Your task to perform on an android device: install app "Truecaller" Image 0: 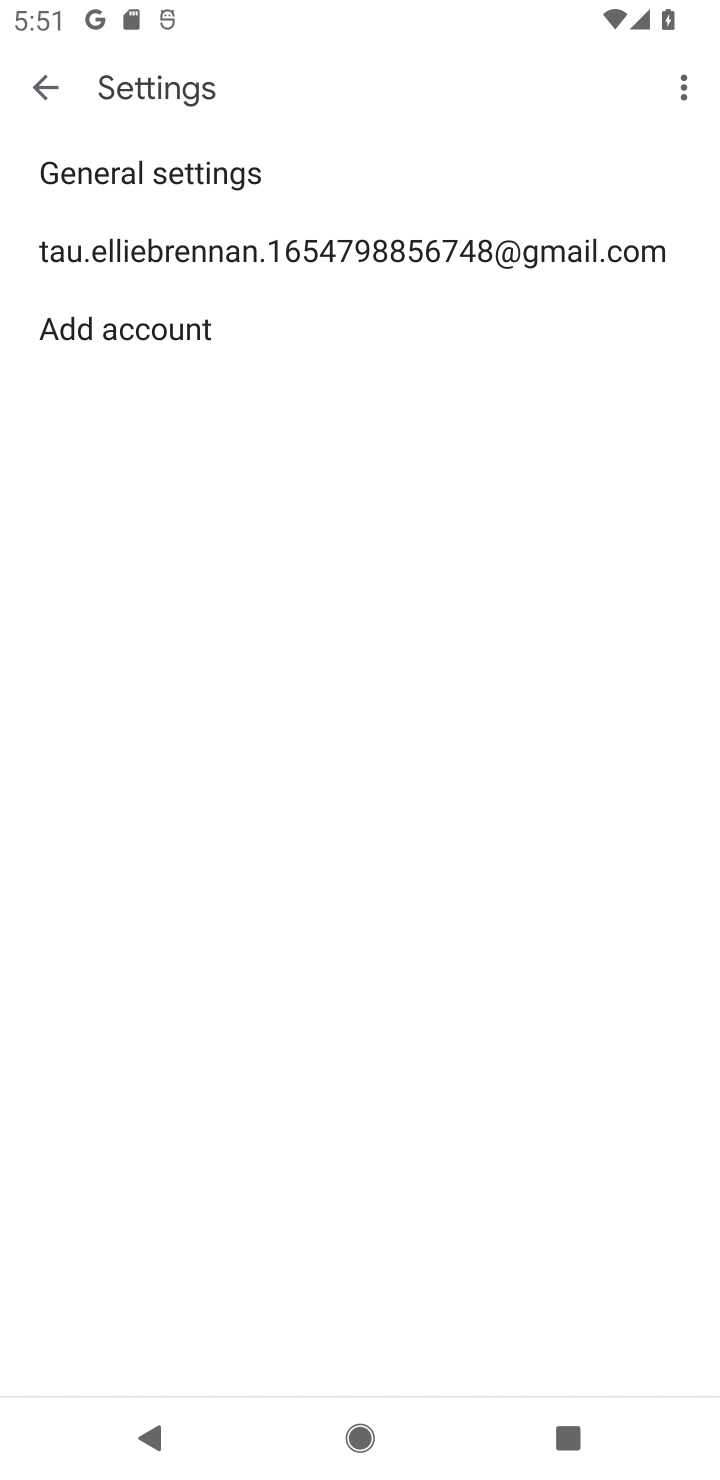
Step 0: press home button
Your task to perform on an android device: install app "Truecaller" Image 1: 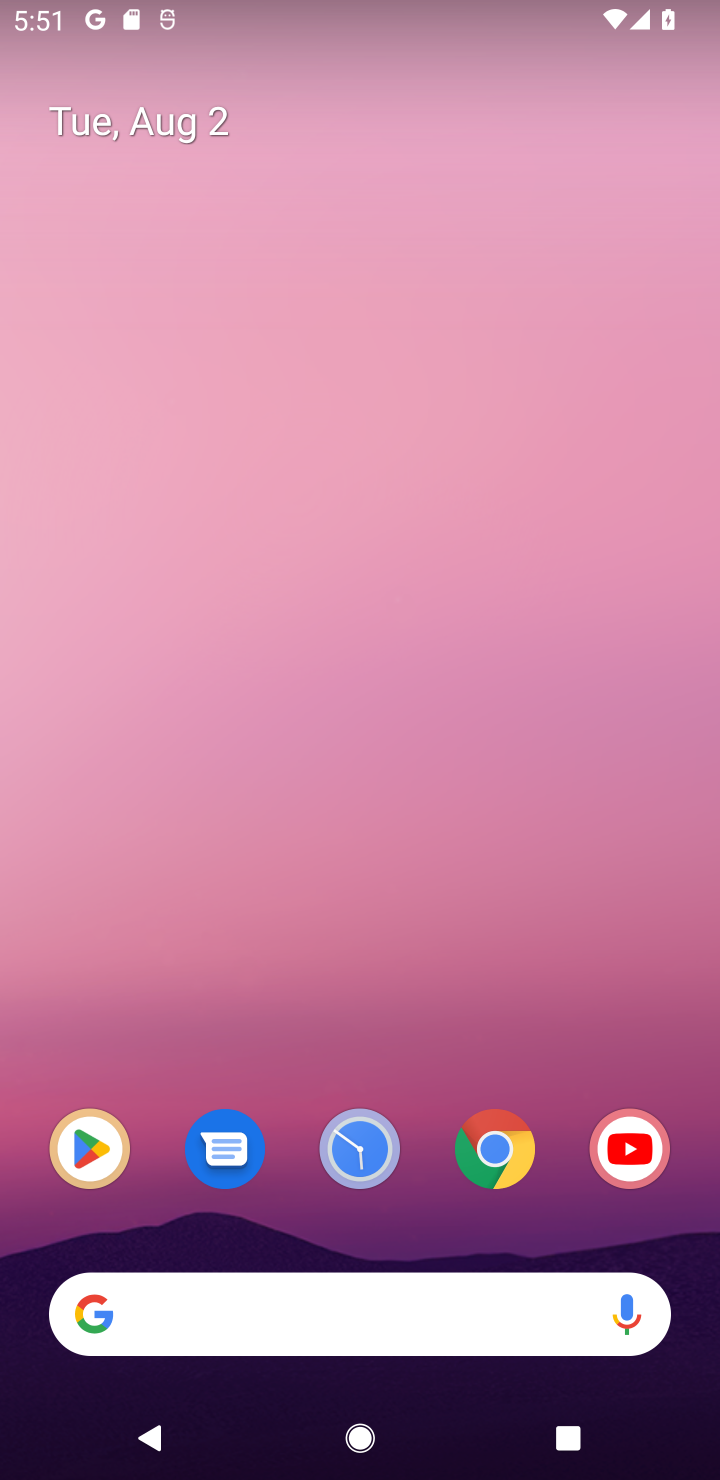
Step 1: click (110, 1153)
Your task to perform on an android device: install app "Truecaller" Image 2: 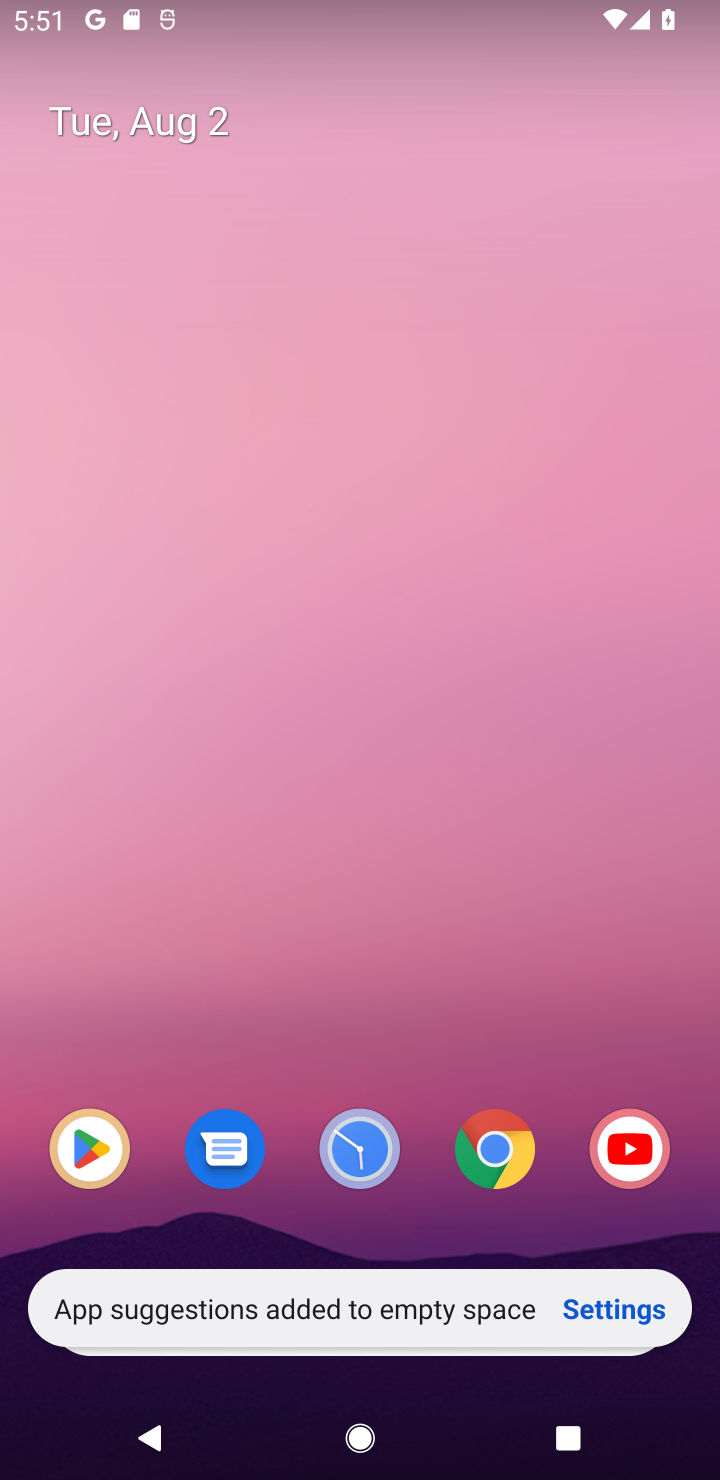
Step 2: click (110, 1146)
Your task to perform on an android device: install app "Truecaller" Image 3: 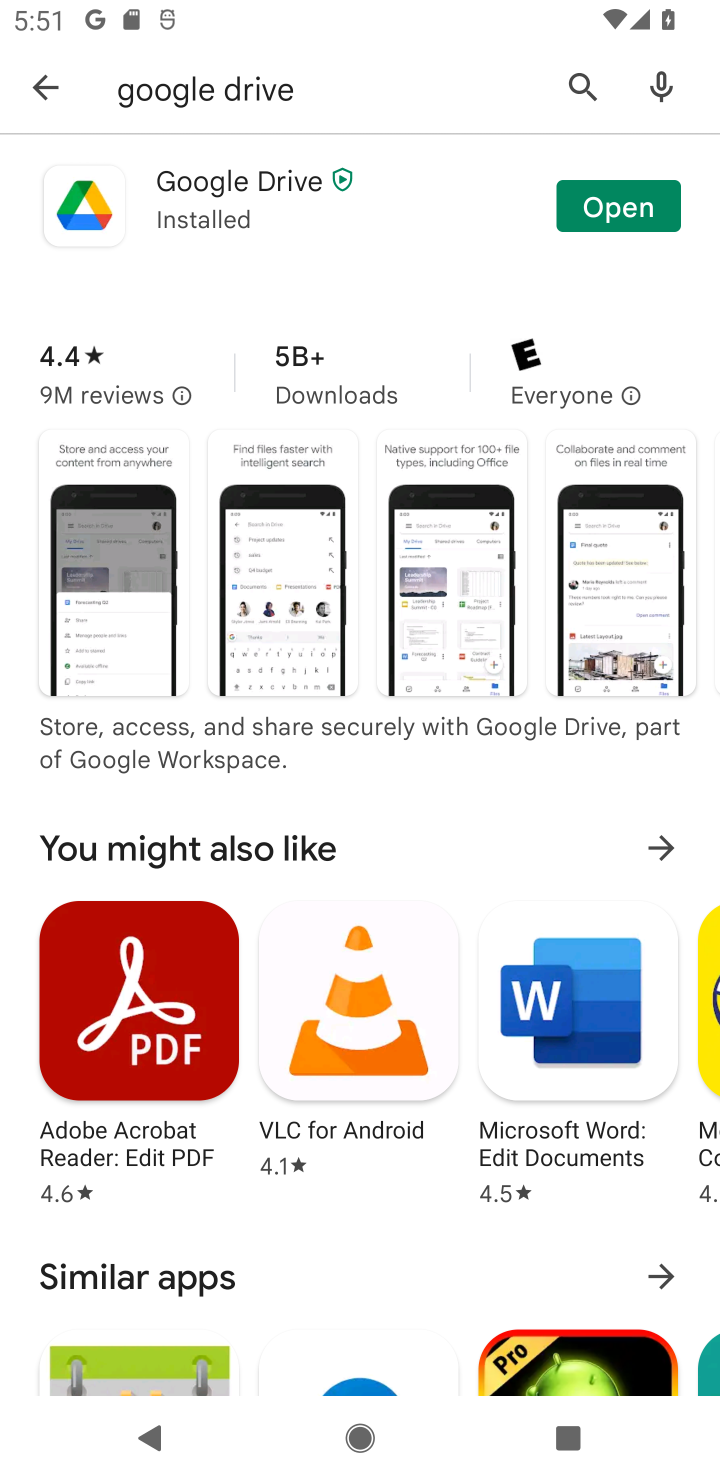
Step 3: click (48, 85)
Your task to perform on an android device: install app "Truecaller" Image 4: 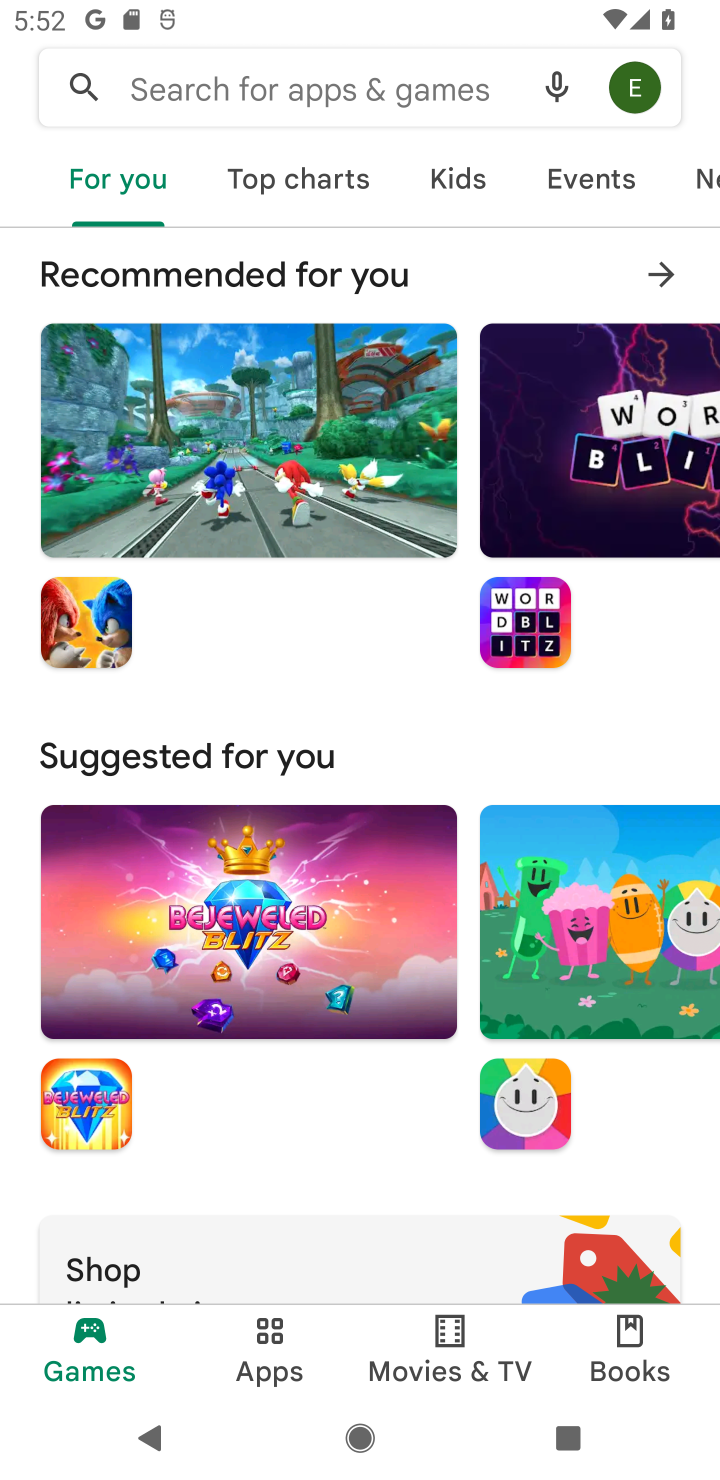
Step 4: click (162, 90)
Your task to perform on an android device: install app "Truecaller" Image 5: 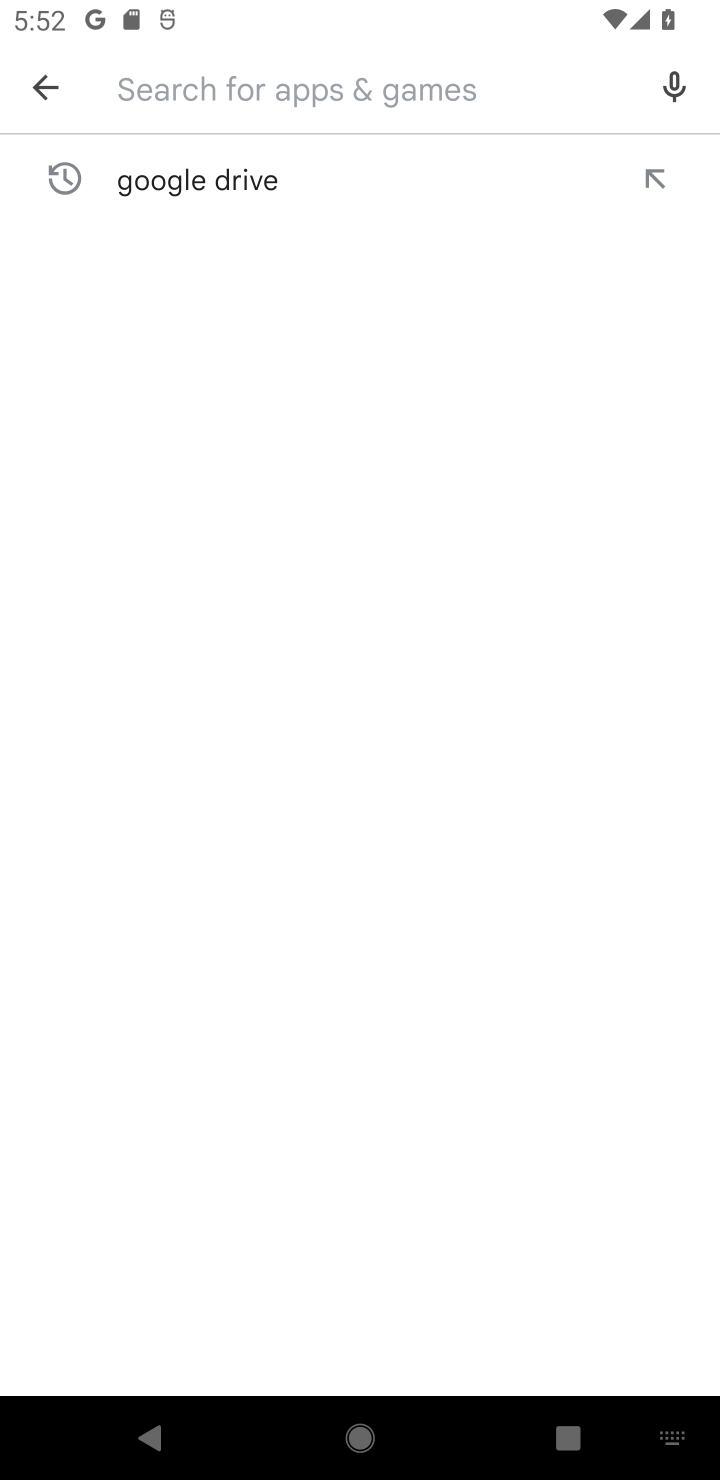
Step 5: type "Truecaller"
Your task to perform on an android device: install app "Truecaller" Image 6: 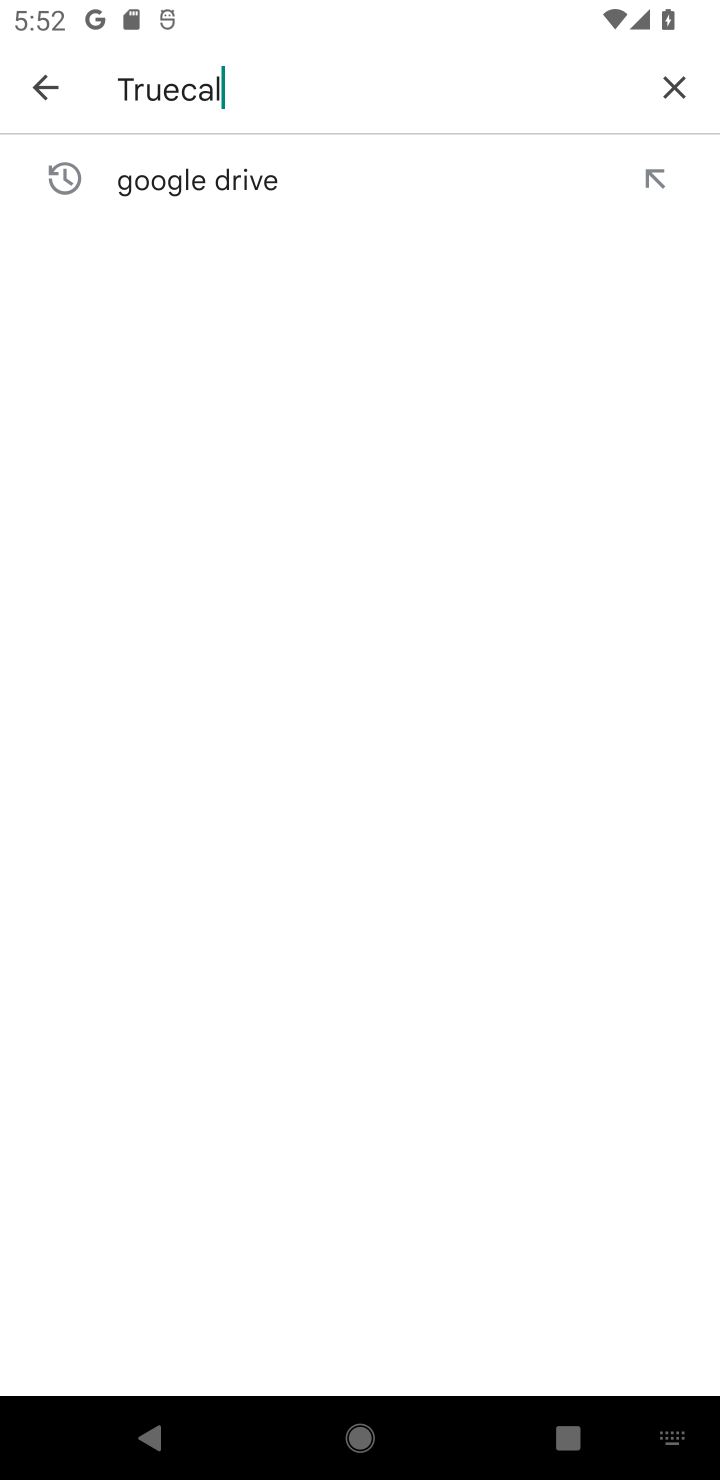
Step 6: type ""
Your task to perform on an android device: install app "Truecaller" Image 7: 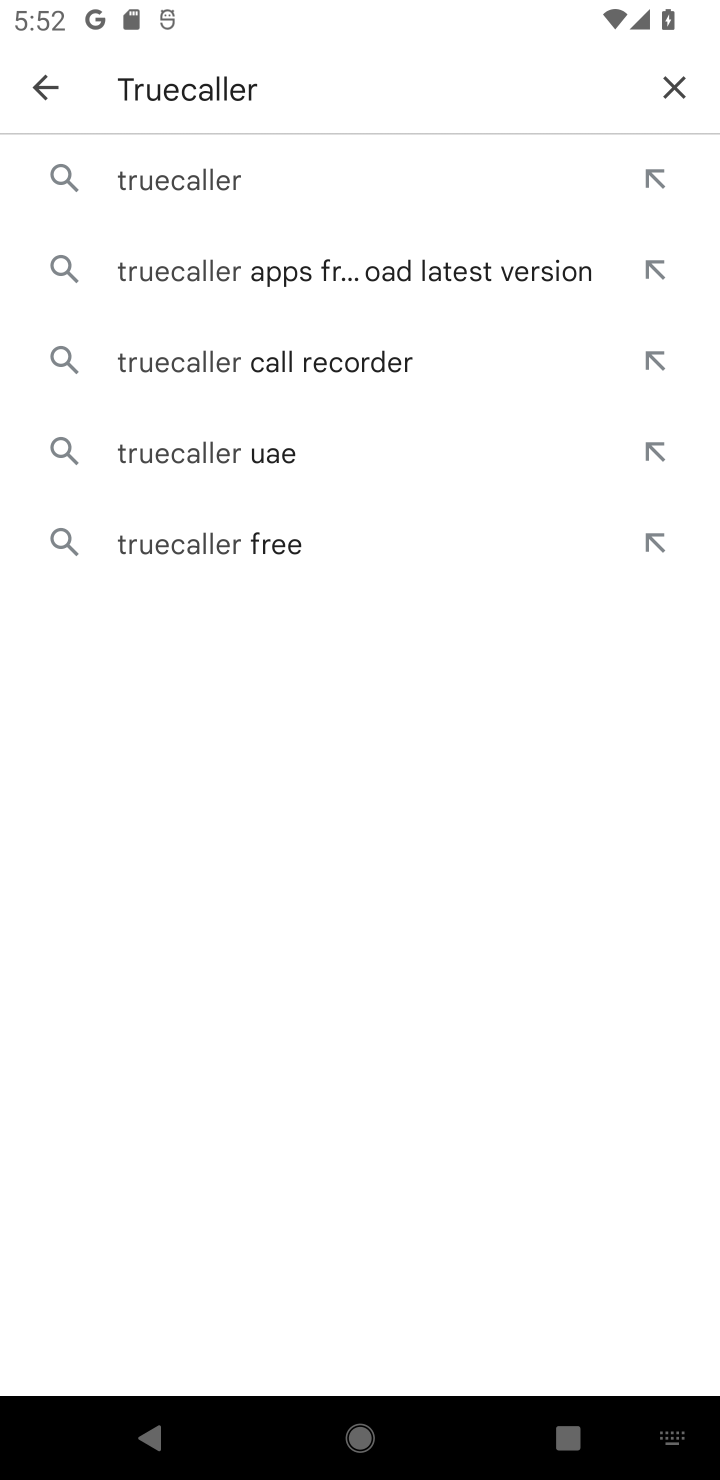
Step 7: click (177, 181)
Your task to perform on an android device: install app "Truecaller" Image 8: 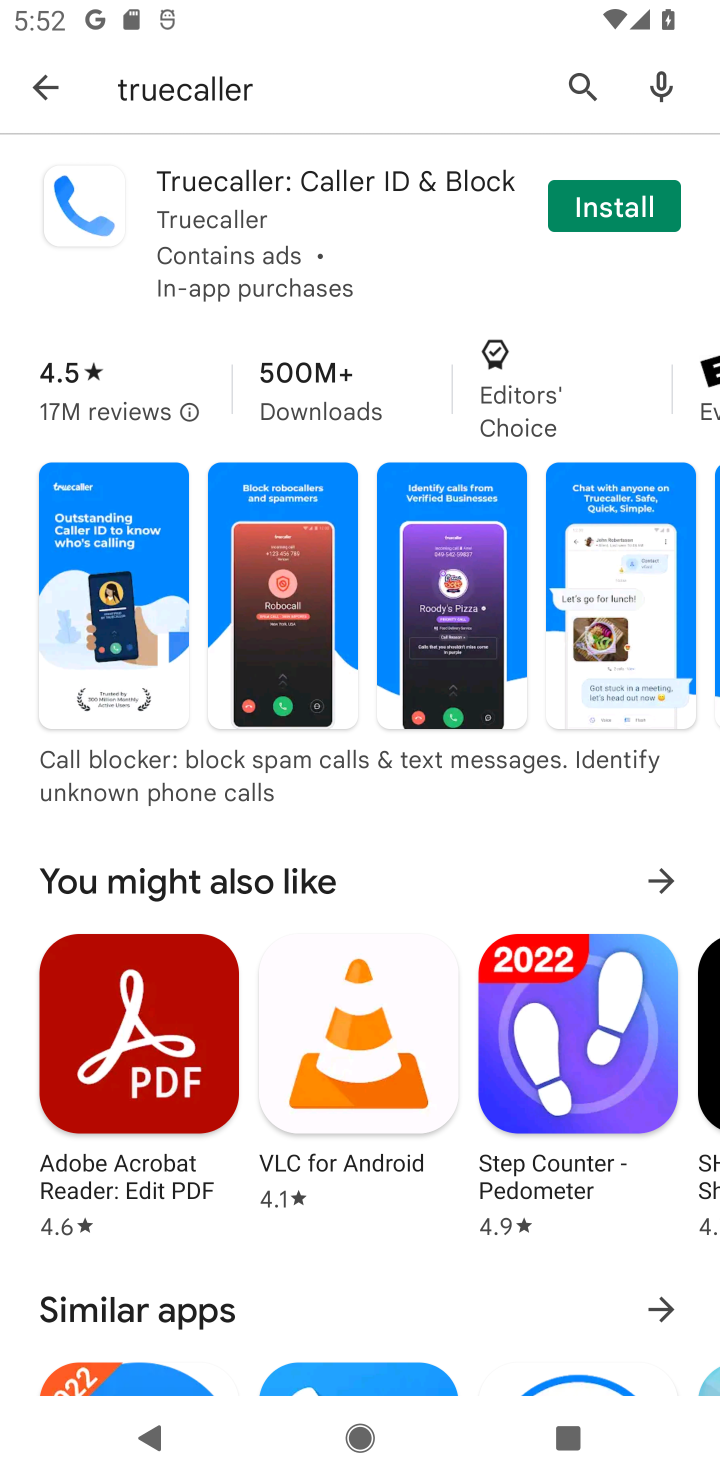
Step 8: click (571, 206)
Your task to perform on an android device: install app "Truecaller" Image 9: 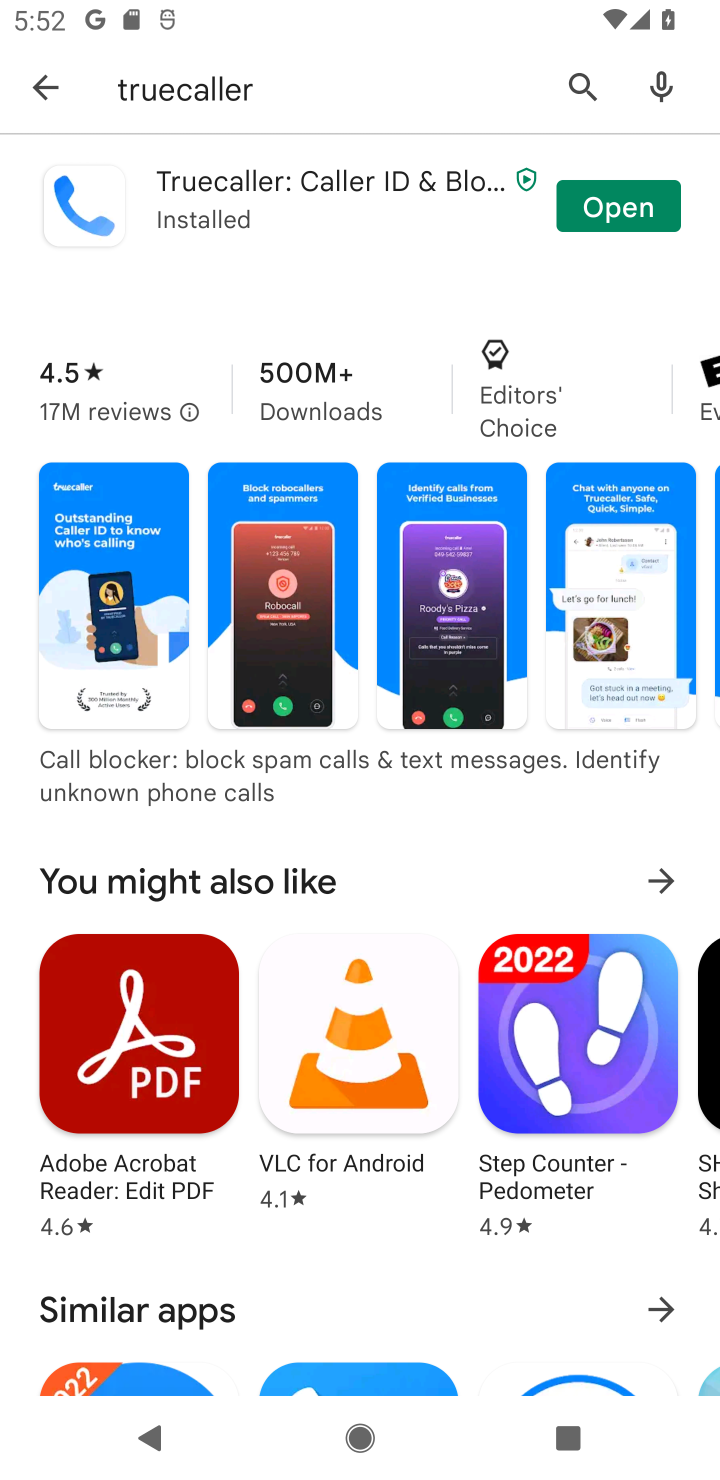
Step 9: click (615, 224)
Your task to perform on an android device: install app "Truecaller" Image 10: 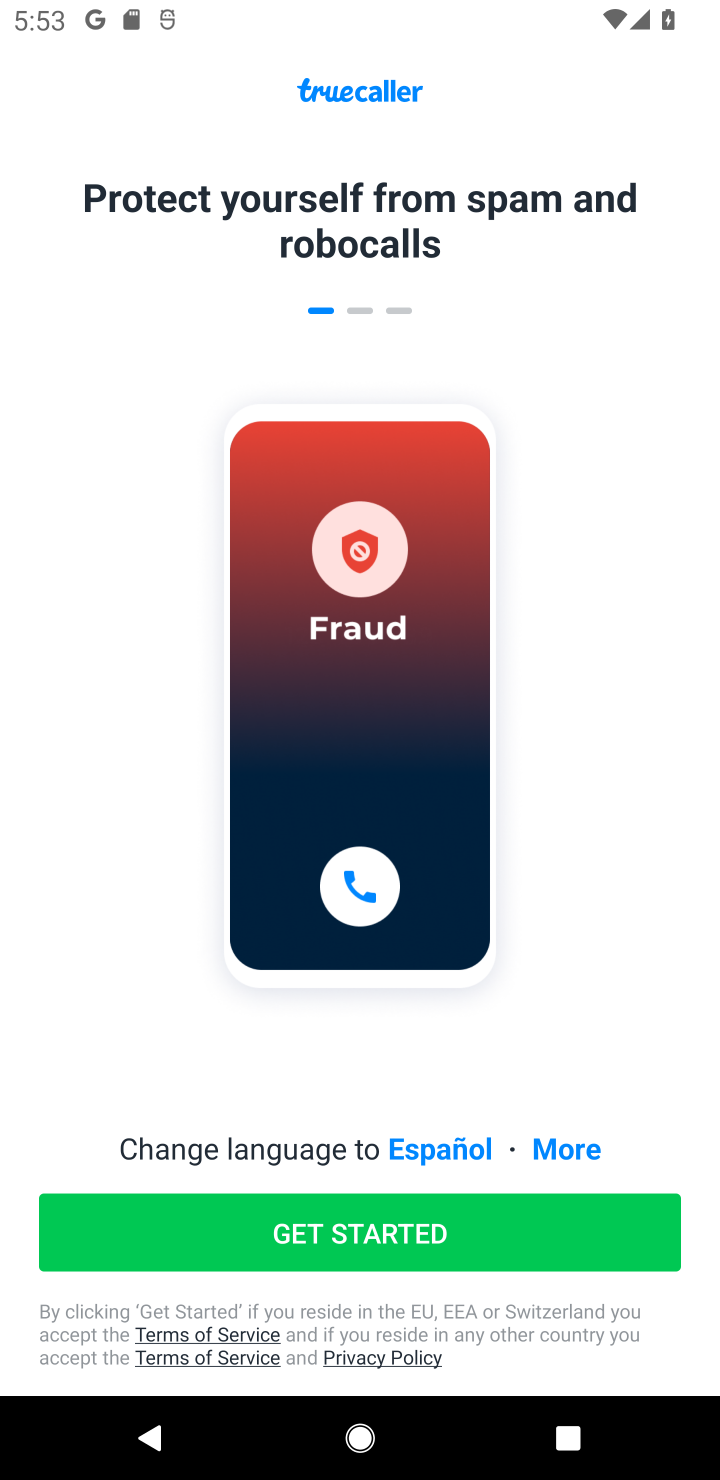
Step 10: task complete